Your task to perform on an android device: Open calendar and show me the first week of next month Image 0: 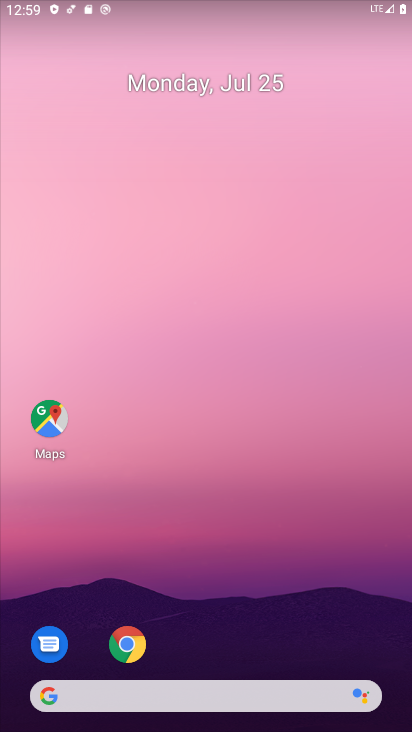
Step 0: click (215, 724)
Your task to perform on an android device: Open calendar and show me the first week of next month Image 1: 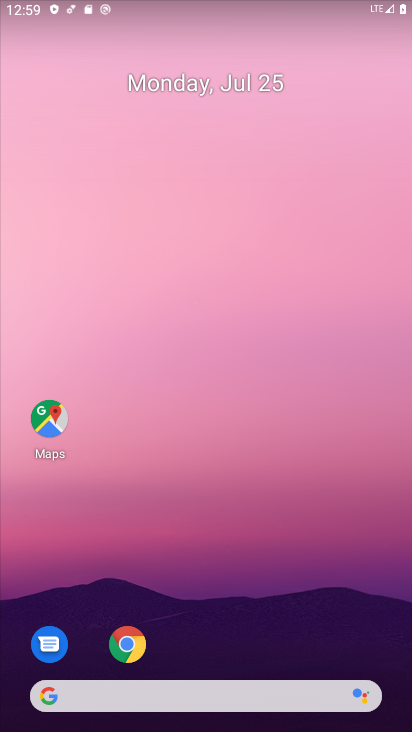
Step 1: drag from (203, 675) to (213, 124)
Your task to perform on an android device: Open calendar and show me the first week of next month Image 2: 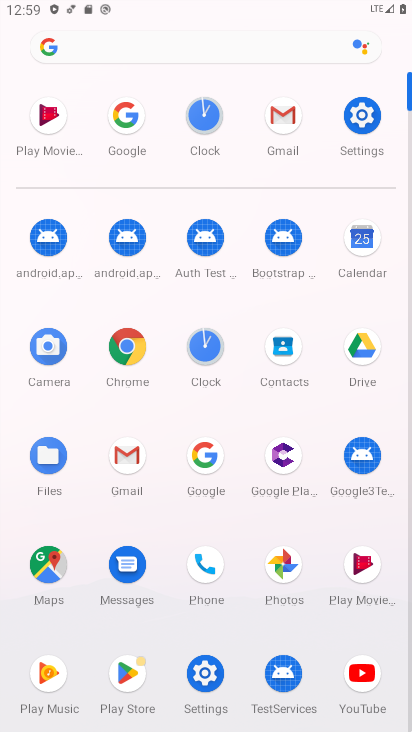
Step 2: click (365, 243)
Your task to perform on an android device: Open calendar and show me the first week of next month Image 3: 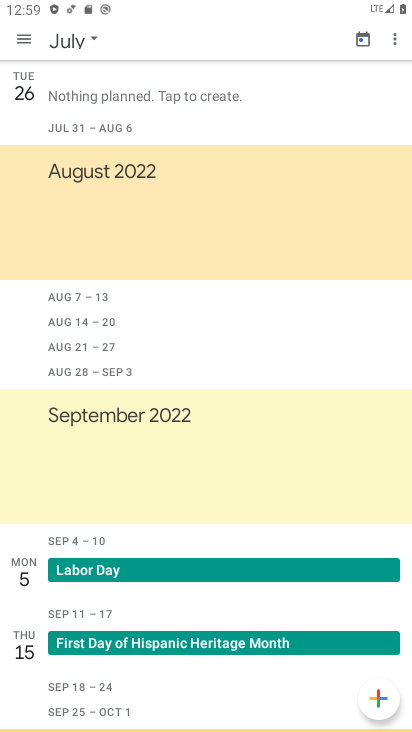
Step 3: click (78, 40)
Your task to perform on an android device: Open calendar and show me the first week of next month Image 4: 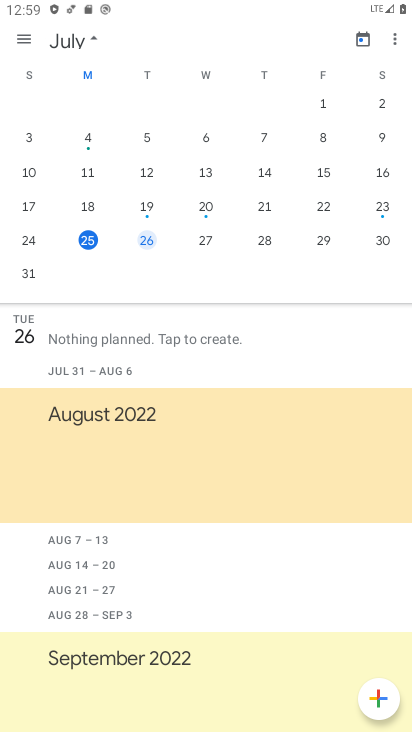
Step 4: drag from (279, 197) to (132, 195)
Your task to perform on an android device: Open calendar and show me the first week of next month Image 5: 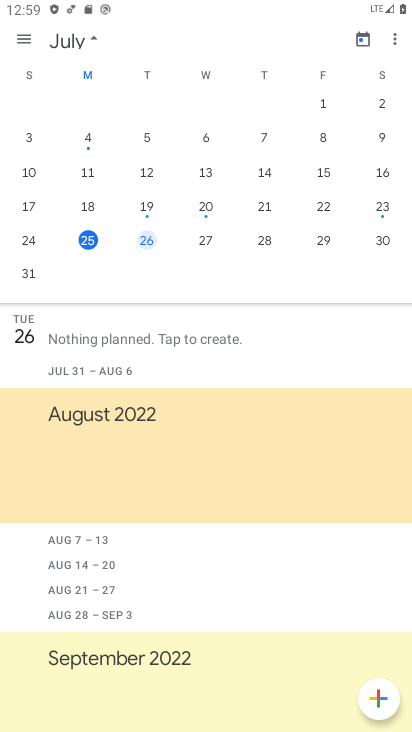
Step 5: drag from (381, 172) to (44, 166)
Your task to perform on an android device: Open calendar and show me the first week of next month Image 6: 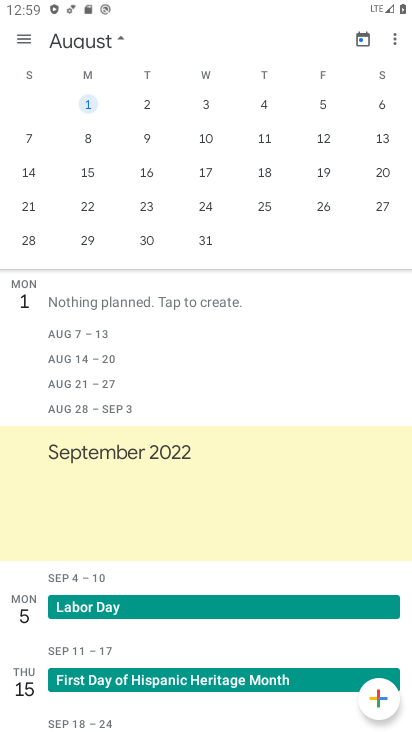
Step 6: click (18, 41)
Your task to perform on an android device: Open calendar and show me the first week of next month Image 7: 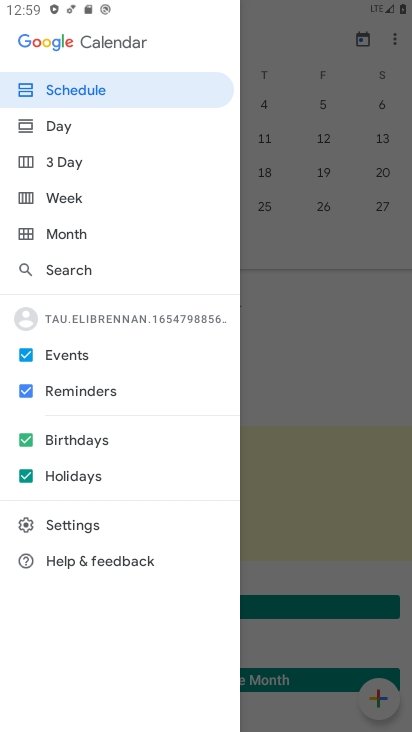
Step 7: click (73, 202)
Your task to perform on an android device: Open calendar and show me the first week of next month Image 8: 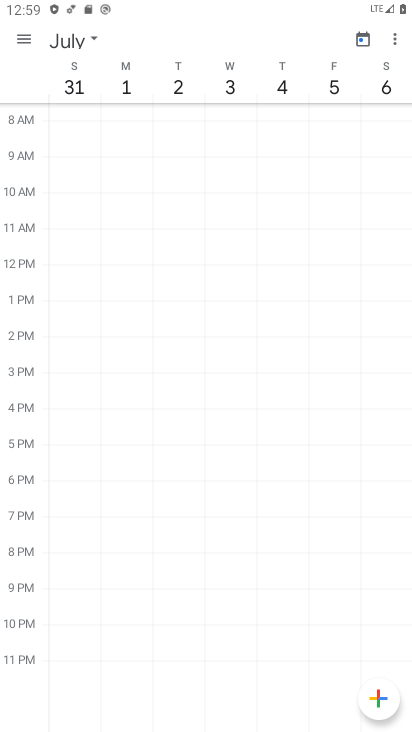
Step 8: task complete